Your task to perform on an android device: Search for pizza restaurants on Maps Image 0: 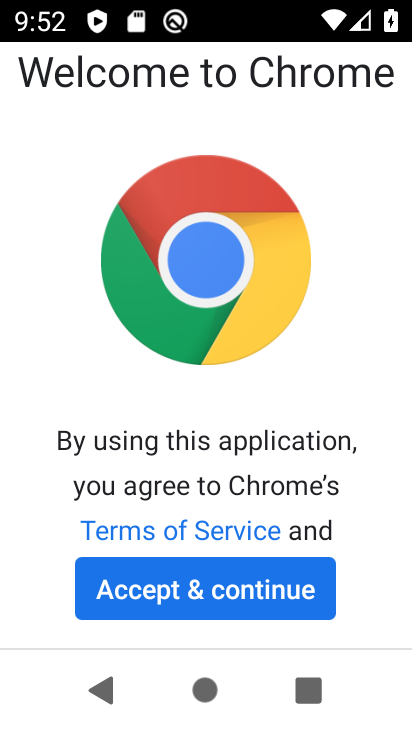
Step 0: click (155, 602)
Your task to perform on an android device: Search for pizza restaurants on Maps Image 1: 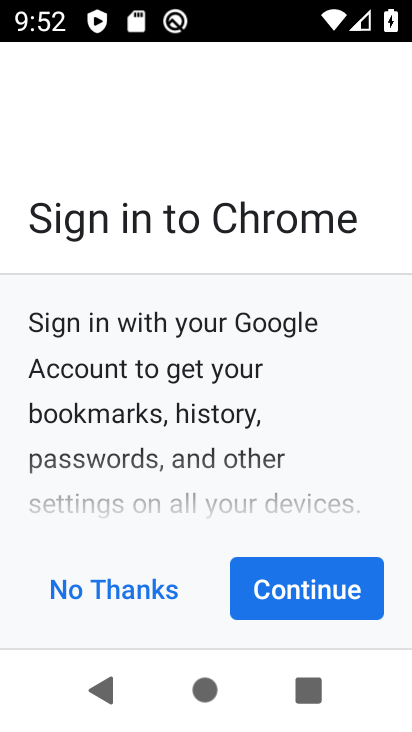
Step 1: press home button
Your task to perform on an android device: Search for pizza restaurants on Maps Image 2: 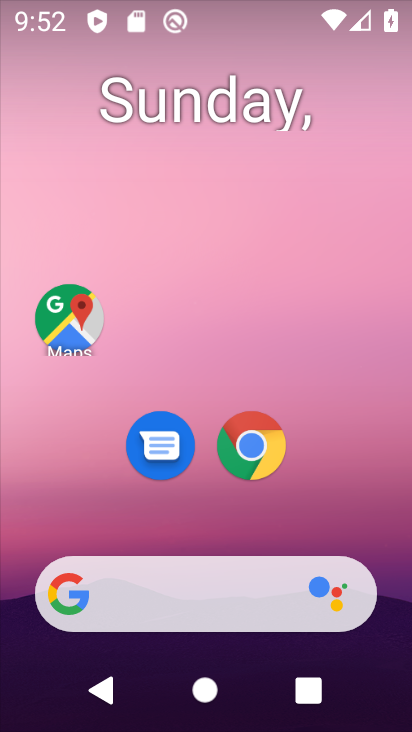
Step 2: click (71, 323)
Your task to perform on an android device: Search for pizza restaurants on Maps Image 3: 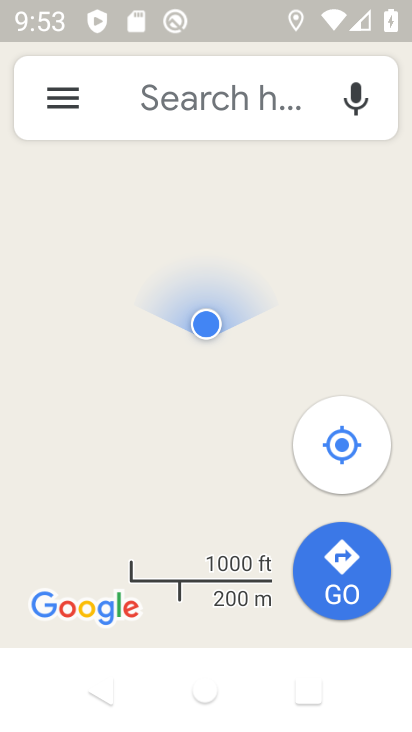
Step 3: click (174, 93)
Your task to perform on an android device: Search for pizza restaurants on Maps Image 4: 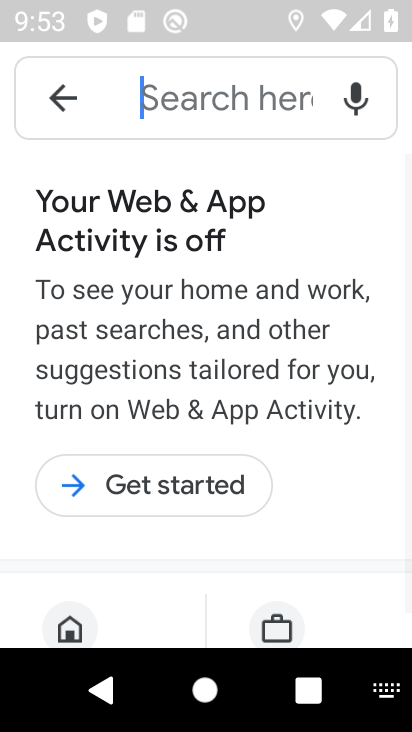
Step 4: type "pizza restaurants "
Your task to perform on an android device: Search for pizza restaurants on Maps Image 5: 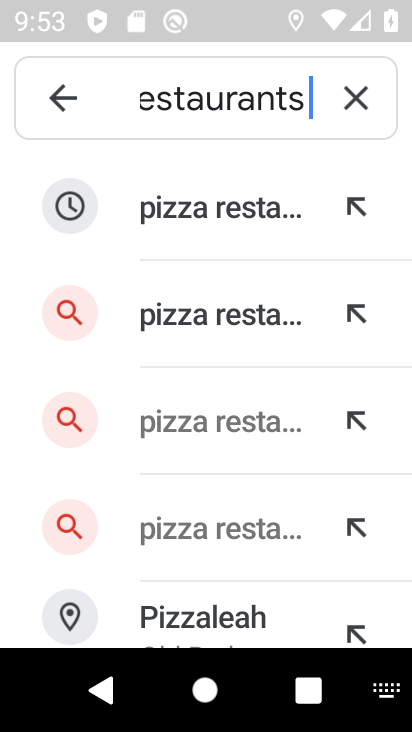
Step 5: click (153, 213)
Your task to perform on an android device: Search for pizza restaurants on Maps Image 6: 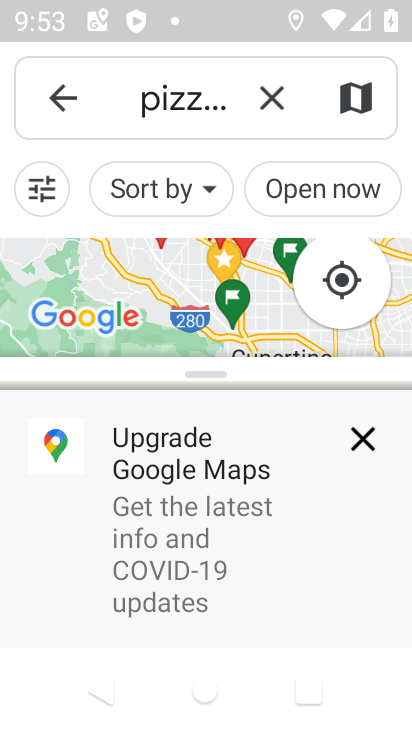
Step 6: task complete